Your task to perform on an android device: turn pop-ups off in chrome Image 0: 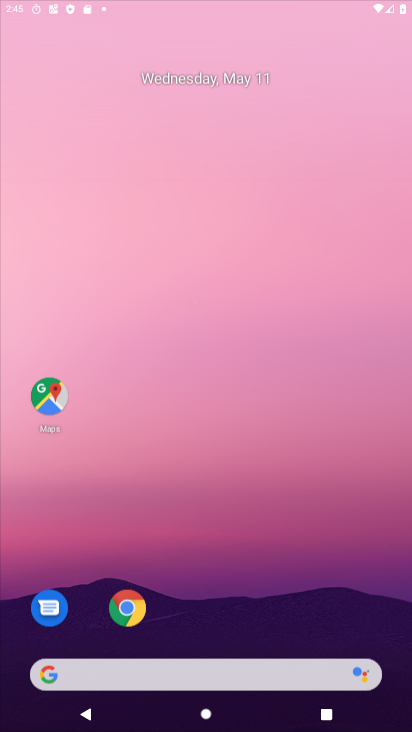
Step 0: press home button
Your task to perform on an android device: turn pop-ups off in chrome Image 1: 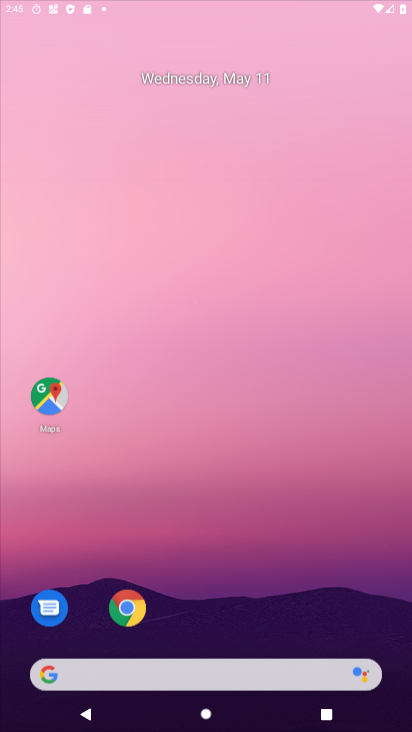
Step 1: click (225, 361)
Your task to perform on an android device: turn pop-ups off in chrome Image 2: 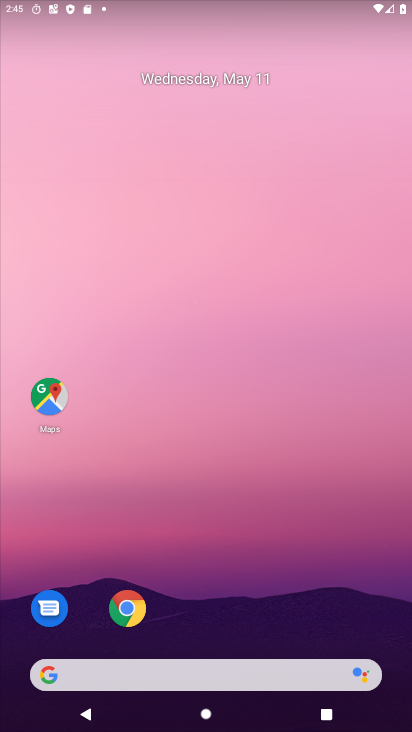
Step 2: drag from (224, 601) to (134, 185)
Your task to perform on an android device: turn pop-ups off in chrome Image 3: 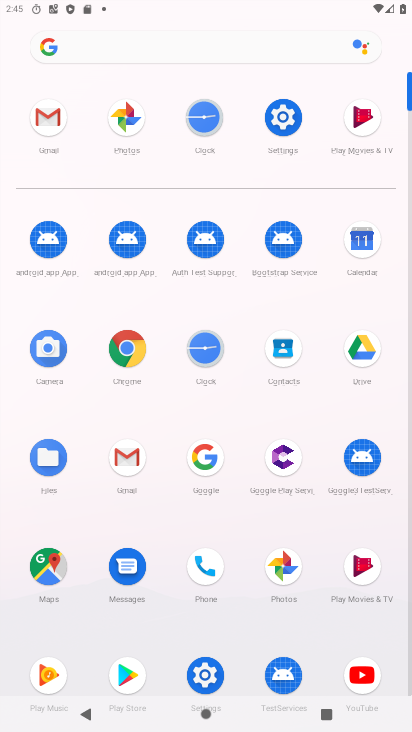
Step 3: click (130, 364)
Your task to perform on an android device: turn pop-ups off in chrome Image 4: 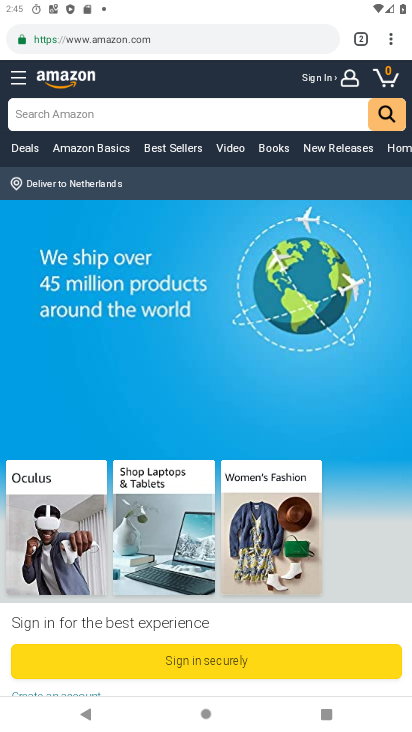
Step 4: click (380, 48)
Your task to perform on an android device: turn pop-ups off in chrome Image 5: 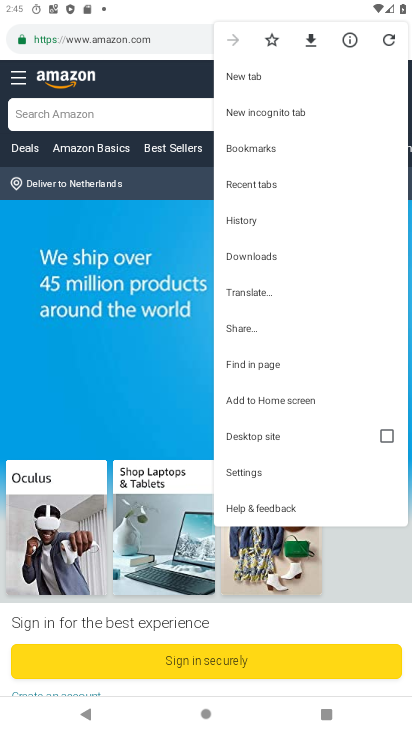
Step 5: click (277, 472)
Your task to perform on an android device: turn pop-ups off in chrome Image 6: 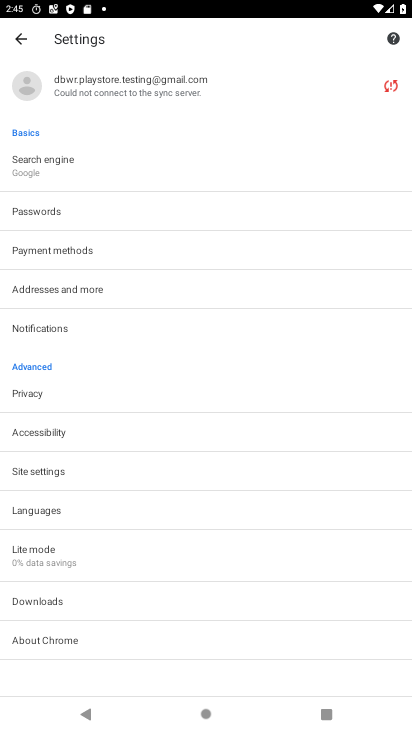
Step 6: click (204, 482)
Your task to perform on an android device: turn pop-ups off in chrome Image 7: 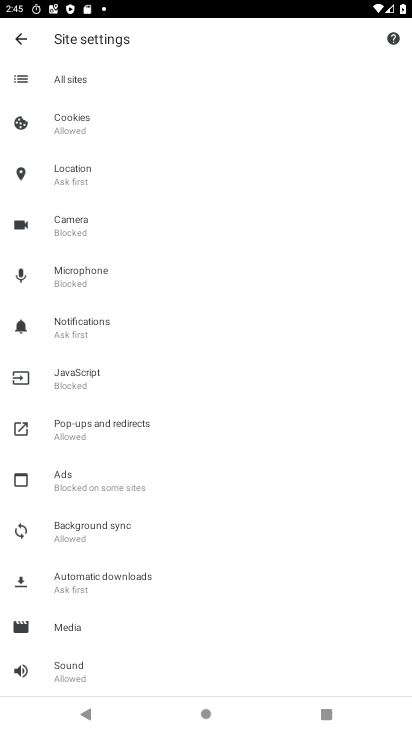
Step 7: click (78, 439)
Your task to perform on an android device: turn pop-ups off in chrome Image 8: 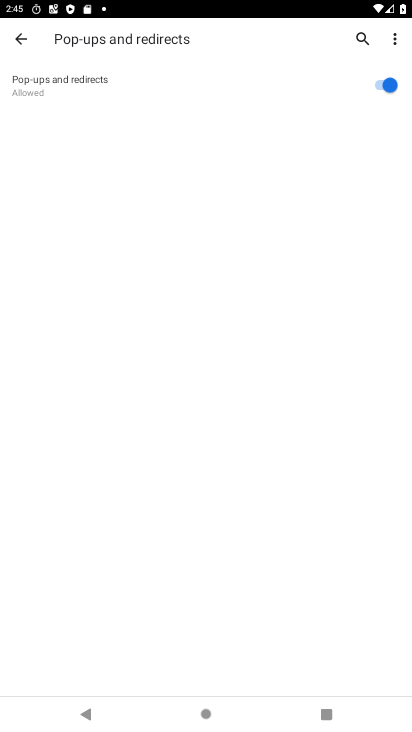
Step 8: click (399, 86)
Your task to perform on an android device: turn pop-ups off in chrome Image 9: 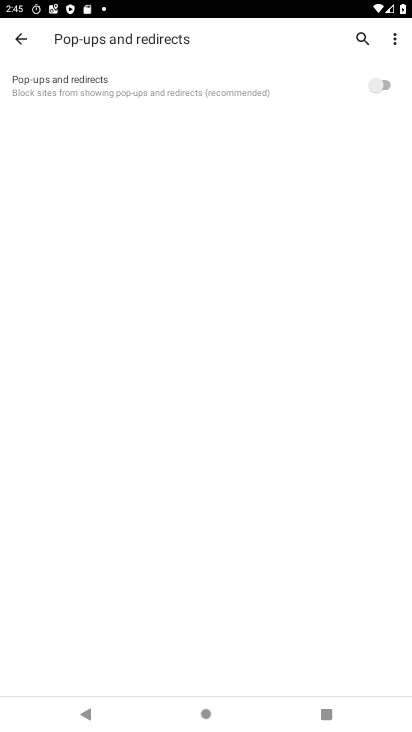
Step 9: task complete